Your task to perform on an android device: see sites visited before in the chrome app Image 0: 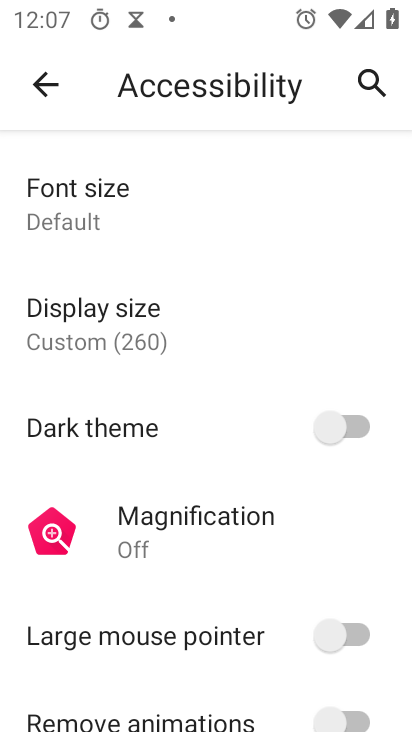
Step 0: press home button
Your task to perform on an android device: see sites visited before in the chrome app Image 1: 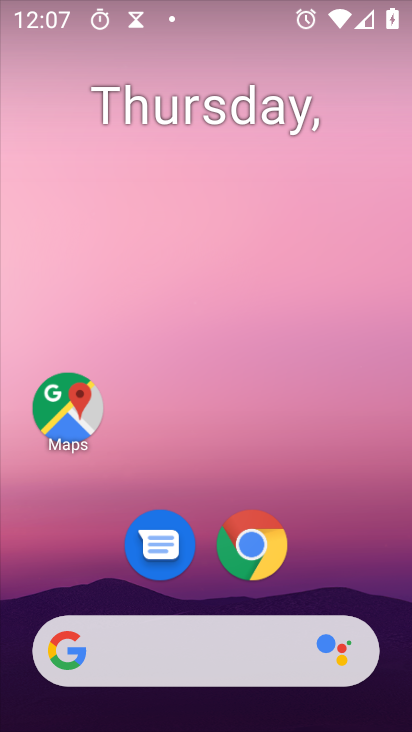
Step 1: click (240, 543)
Your task to perform on an android device: see sites visited before in the chrome app Image 2: 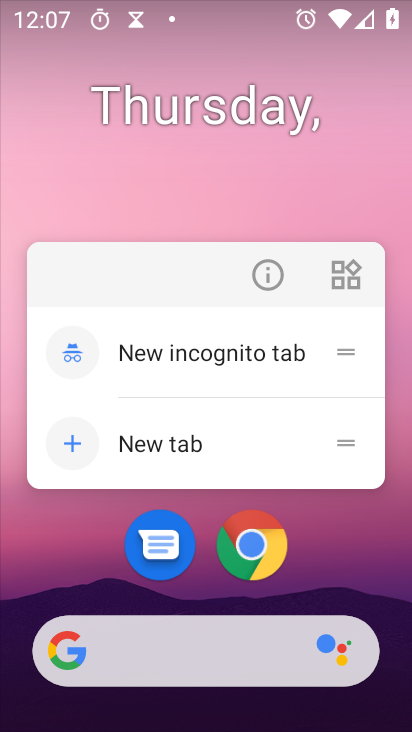
Step 2: click (243, 546)
Your task to perform on an android device: see sites visited before in the chrome app Image 3: 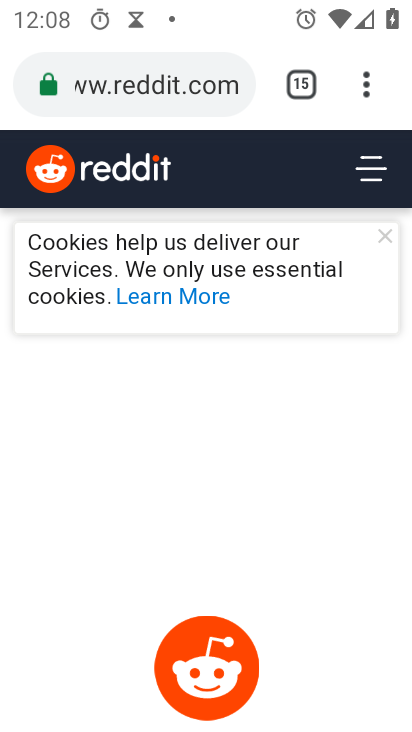
Step 3: task complete